Your task to perform on an android device: Open the calendar app, open the side menu, and click the "Day" option Image 0: 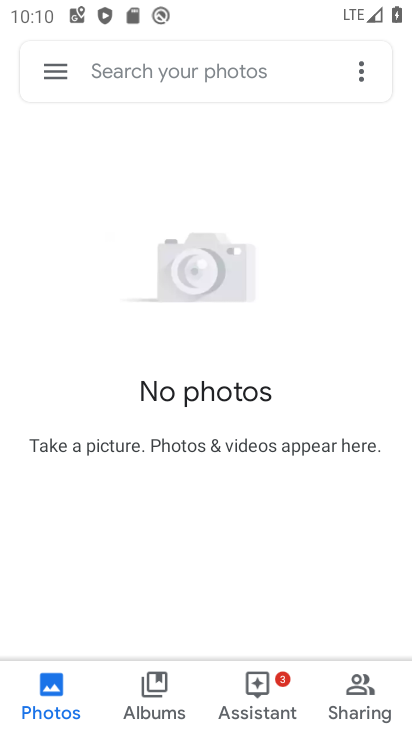
Step 0: press home button
Your task to perform on an android device: Open the calendar app, open the side menu, and click the "Day" option Image 1: 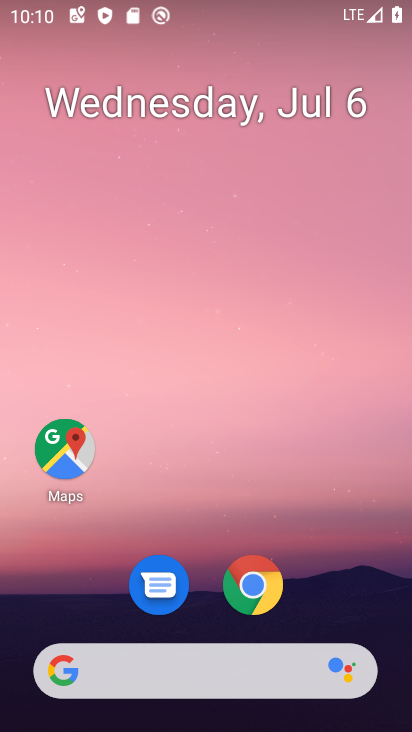
Step 1: drag from (200, 497) to (180, 23)
Your task to perform on an android device: Open the calendar app, open the side menu, and click the "Day" option Image 2: 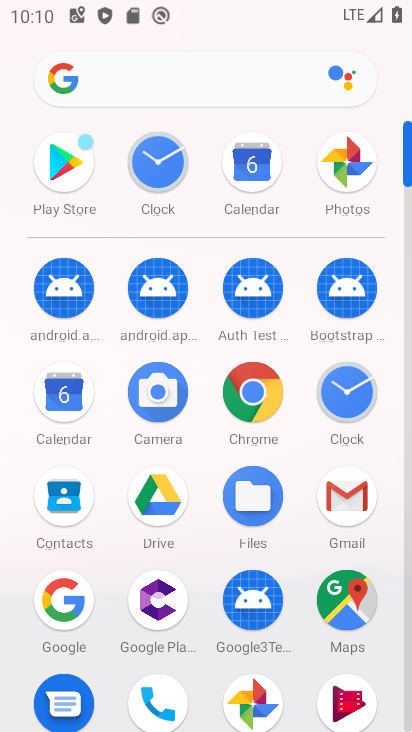
Step 2: click (74, 401)
Your task to perform on an android device: Open the calendar app, open the side menu, and click the "Day" option Image 3: 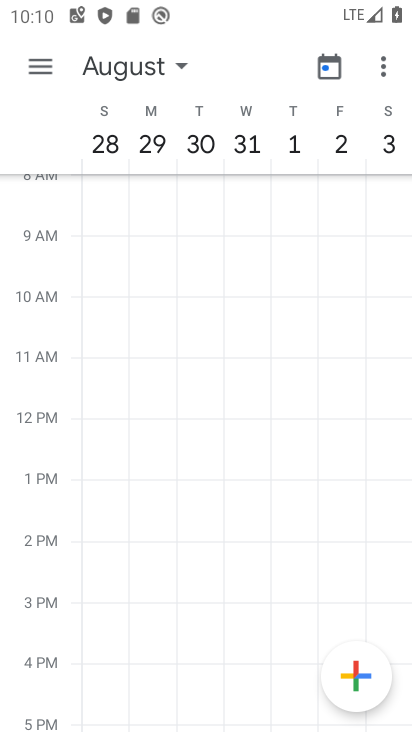
Step 3: click (46, 61)
Your task to perform on an android device: Open the calendar app, open the side menu, and click the "Day" option Image 4: 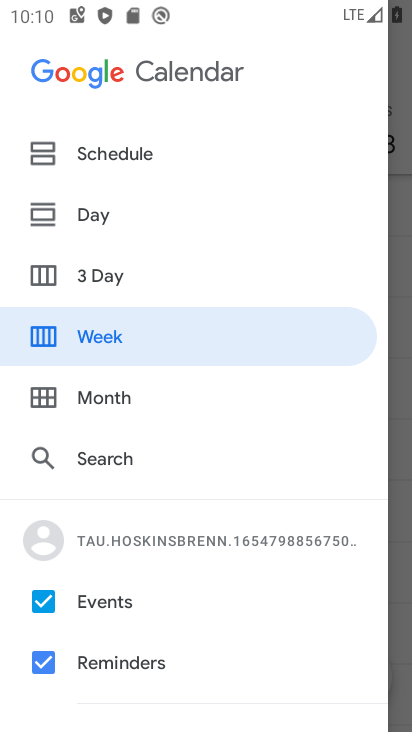
Step 4: click (60, 206)
Your task to perform on an android device: Open the calendar app, open the side menu, and click the "Day" option Image 5: 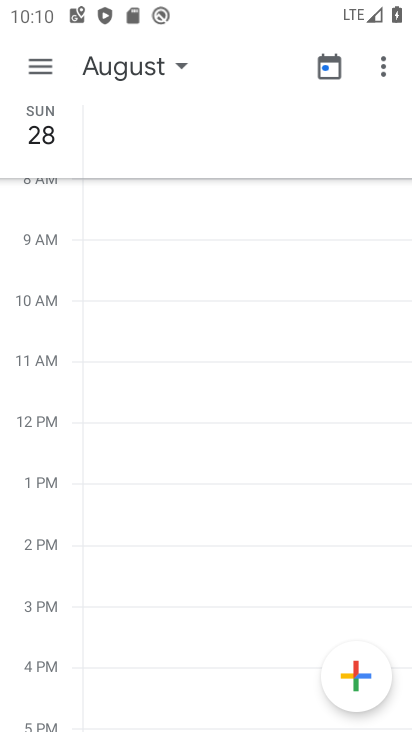
Step 5: task complete